Your task to perform on an android device: set the timer Image 0: 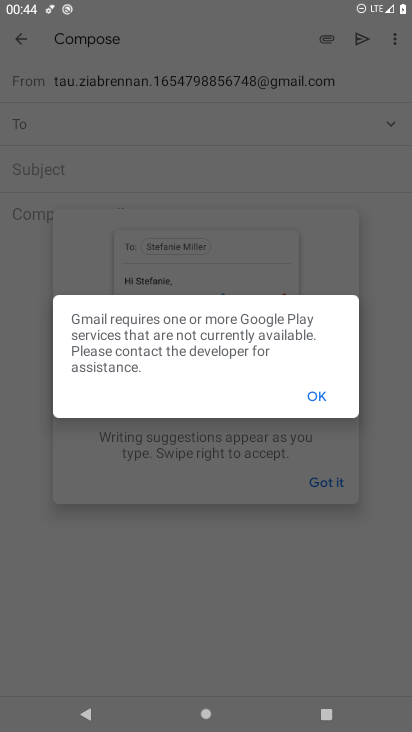
Step 0: click (319, 404)
Your task to perform on an android device: set the timer Image 1: 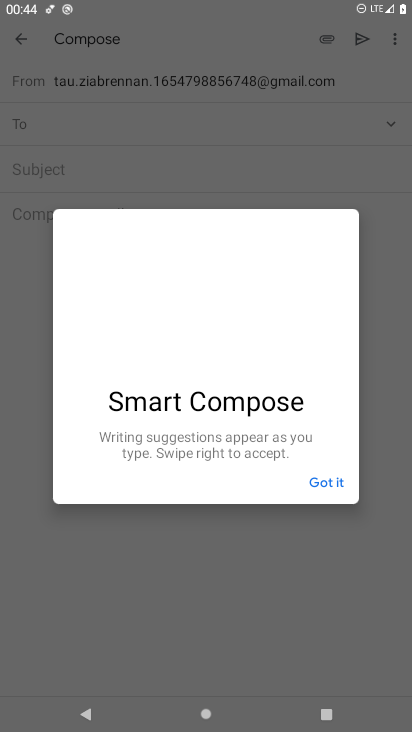
Step 1: press home button
Your task to perform on an android device: set the timer Image 2: 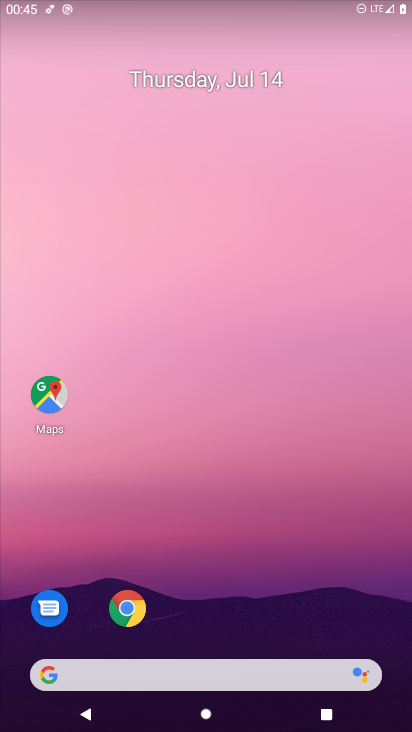
Step 2: drag from (244, 653) to (357, 92)
Your task to perform on an android device: set the timer Image 3: 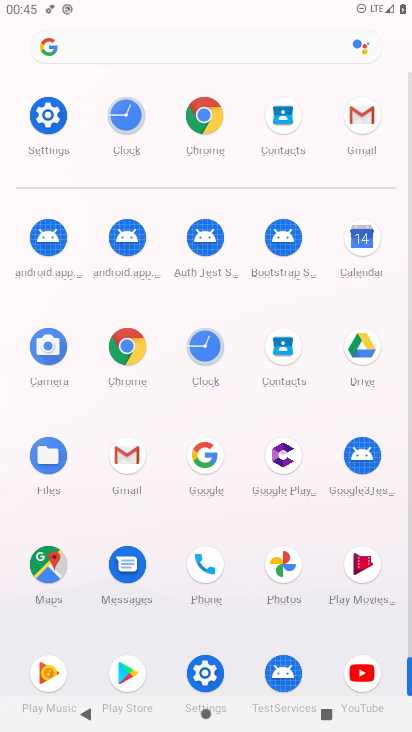
Step 3: click (197, 355)
Your task to perform on an android device: set the timer Image 4: 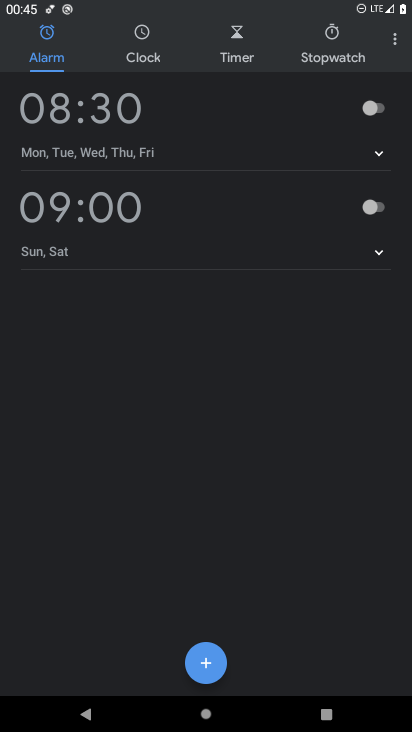
Step 4: click (233, 34)
Your task to perform on an android device: set the timer Image 5: 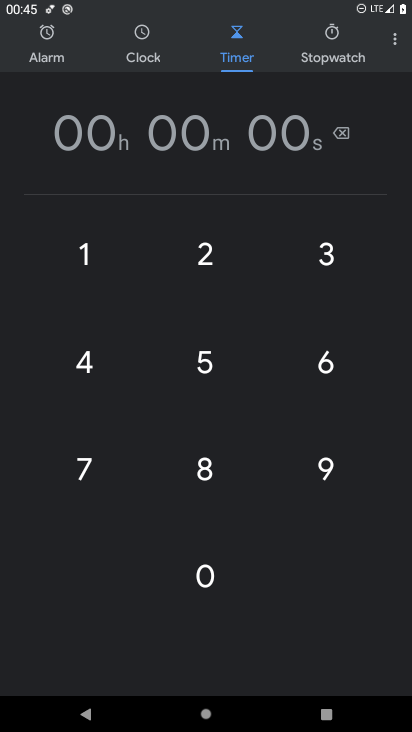
Step 5: click (69, 259)
Your task to perform on an android device: set the timer Image 6: 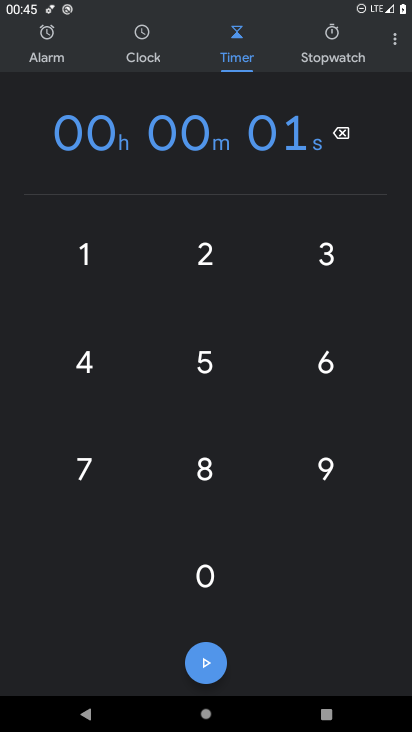
Step 6: click (200, 267)
Your task to perform on an android device: set the timer Image 7: 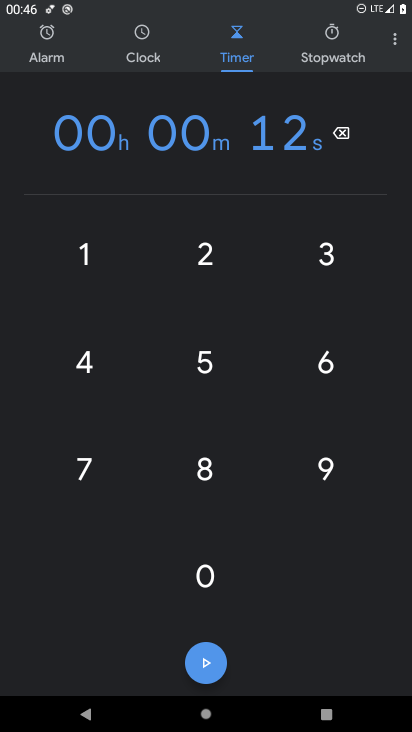
Step 7: click (197, 260)
Your task to perform on an android device: set the timer Image 8: 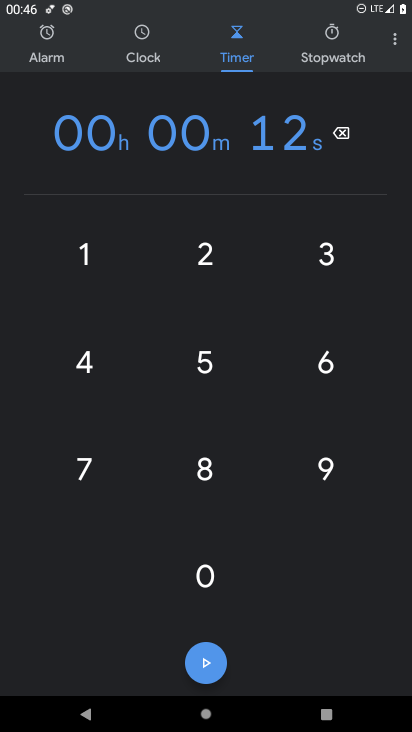
Step 8: click (198, 259)
Your task to perform on an android device: set the timer Image 9: 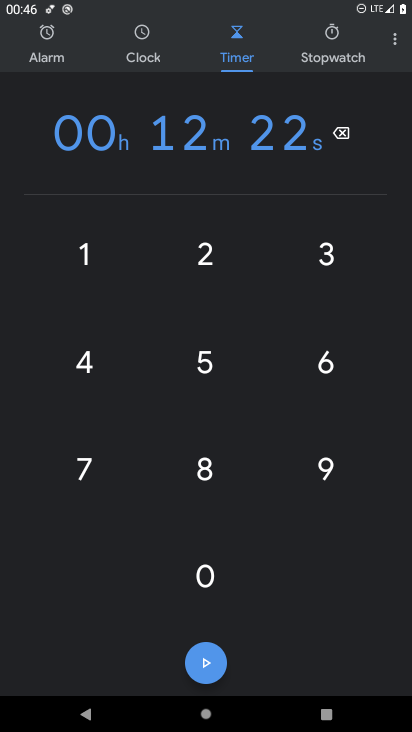
Step 9: click (87, 250)
Your task to perform on an android device: set the timer Image 10: 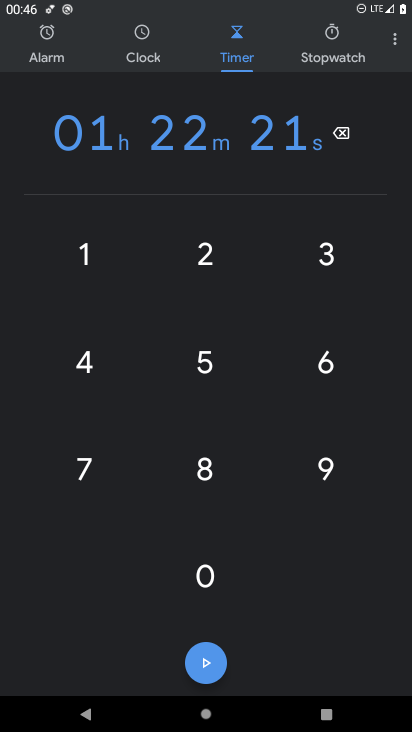
Step 10: click (81, 361)
Your task to perform on an android device: set the timer Image 11: 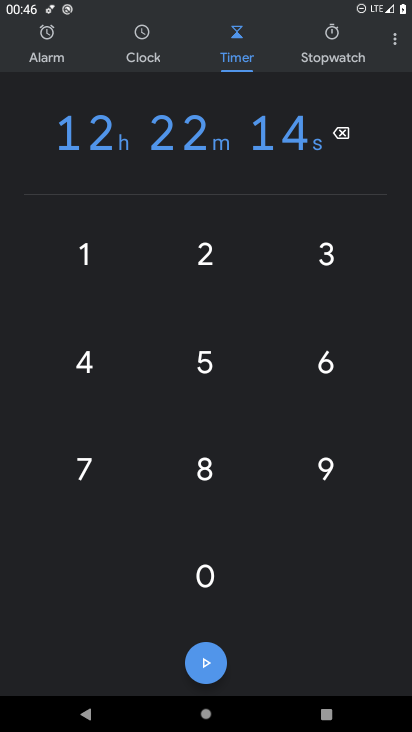
Step 11: click (208, 674)
Your task to perform on an android device: set the timer Image 12: 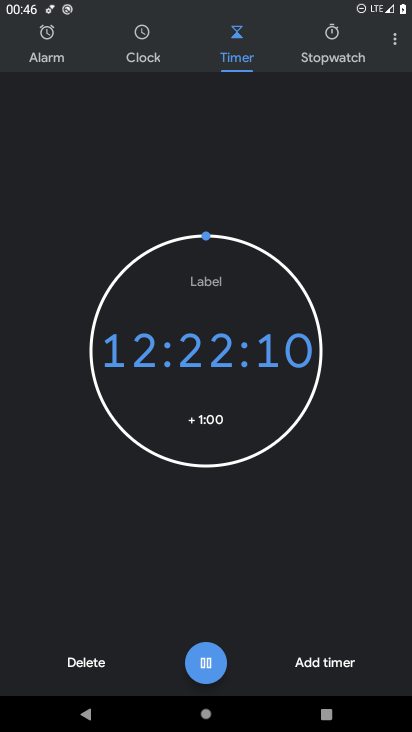
Step 12: task complete